Your task to perform on an android device: Open Amazon Image 0: 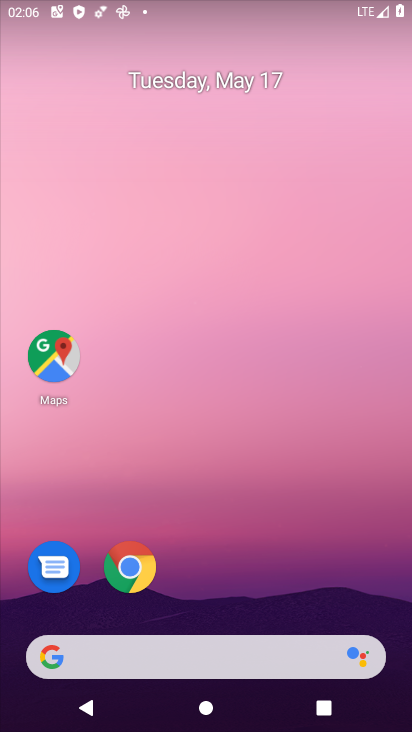
Step 0: click (134, 565)
Your task to perform on an android device: Open Amazon Image 1: 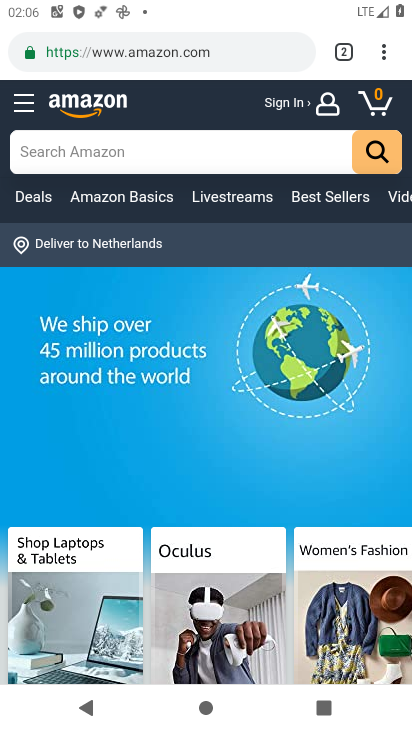
Step 1: task complete